Your task to perform on an android device: see creations saved in the google photos Image 0: 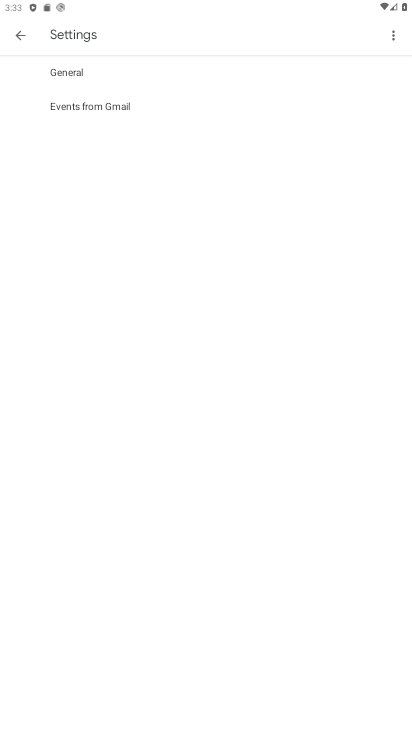
Step 0: press home button
Your task to perform on an android device: see creations saved in the google photos Image 1: 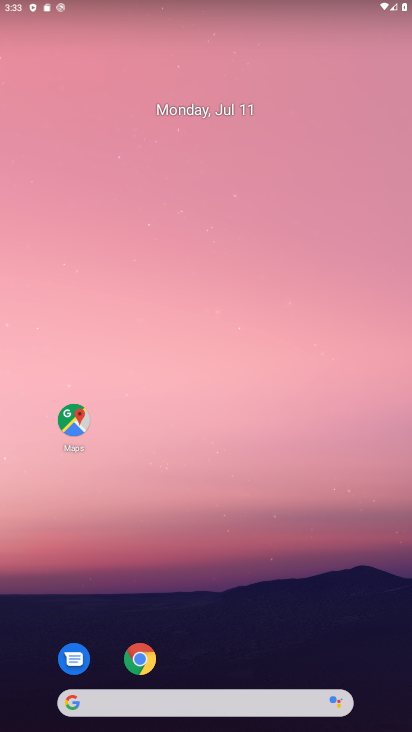
Step 1: drag from (221, 660) to (274, 198)
Your task to perform on an android device: see creations saved in the google photos Image 2: 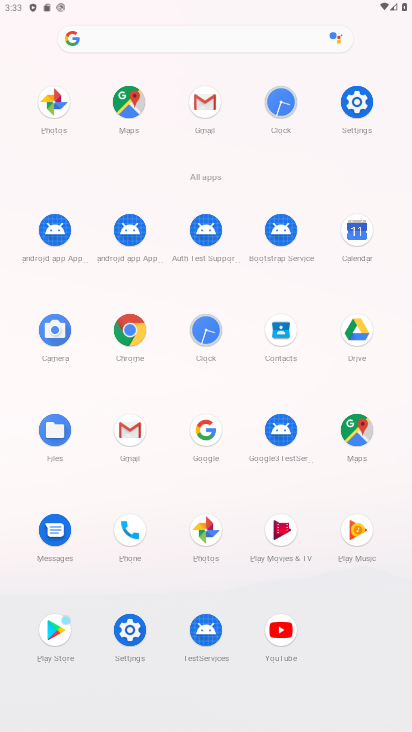
Step 2: click (193, 537)
Your task to perform on an android device: see creations saved in the google photos Image 3: 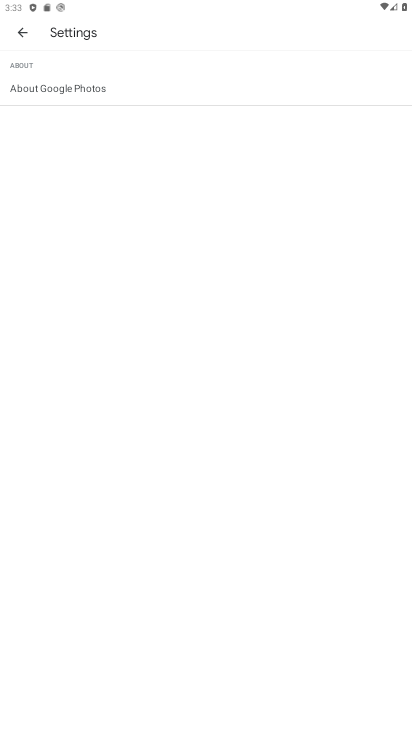
Step 3: press back button
Your task to perform on an android device: see creations saved in the google photos Image 4: 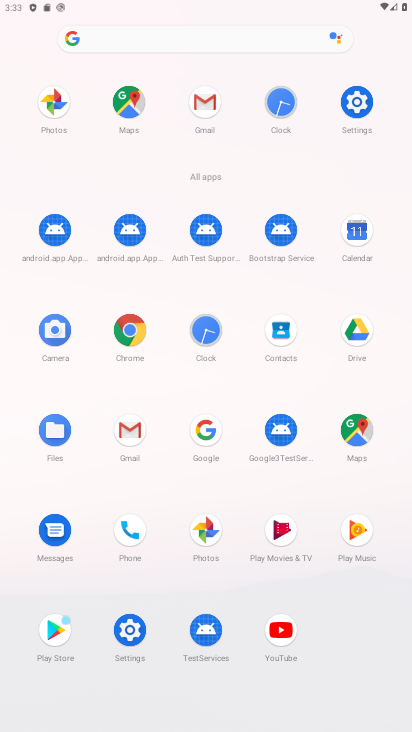
Step 4: click (211, 521)
Your task to perform on an android device: see creations saved in the google photos Image 5: 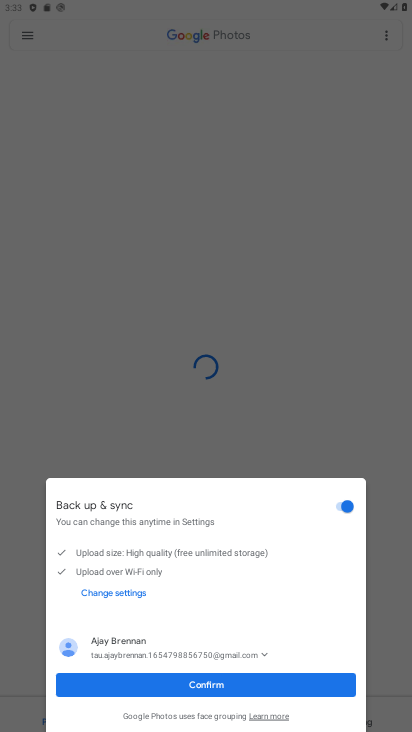
Step 5: click (215, 683)
Your task to perform on an android device: see creations saved in the google photos Image 6: 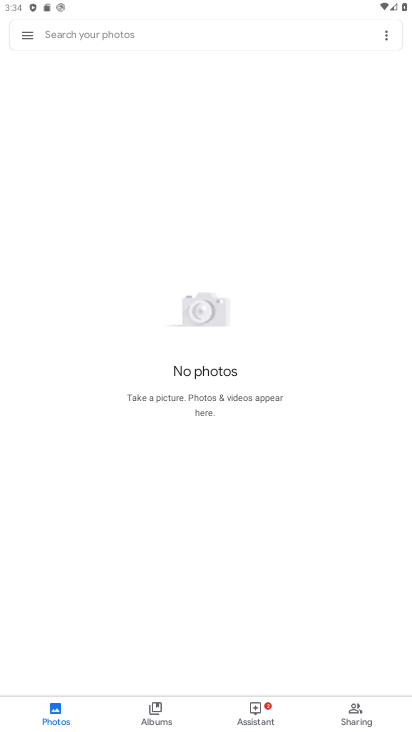
Step 6: click (166, 41)
Your task to perform on an android device: see creations saved in the google photos Image 7: 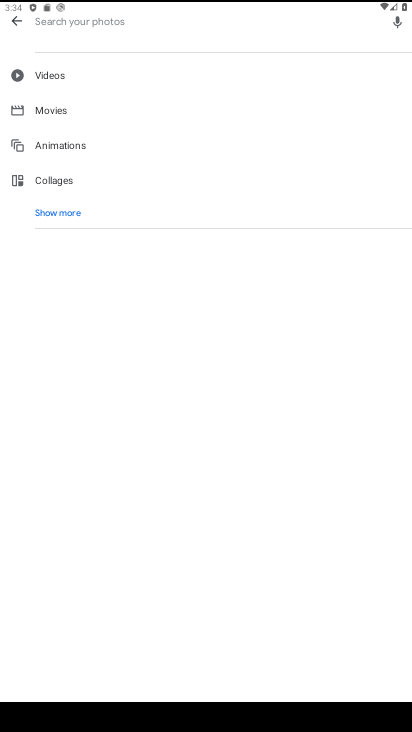
Step 7: click (67, 208)
Your task to perform on an android device: see creations saved in the google photos Image 8: 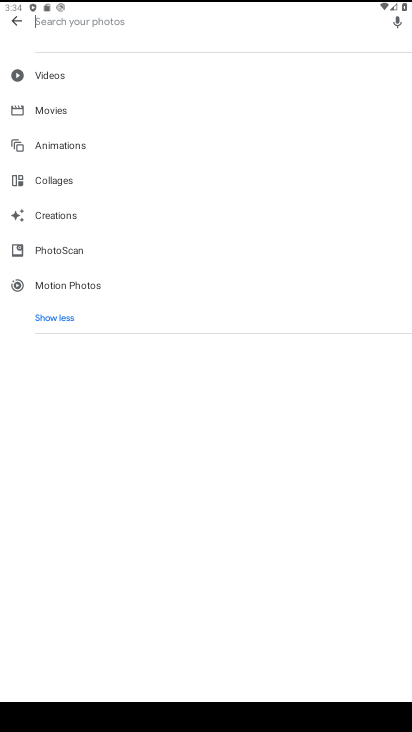
Step 8: click (63, 212)
Your task to perform on an android device: see creations saved in the google photos Image 9: 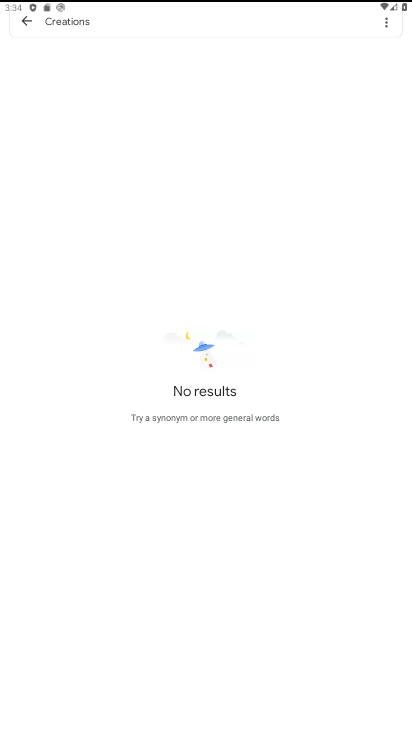
Step 9: task complete